Your task to perform on an android device: open a bookmark in the chrome app Image 0: 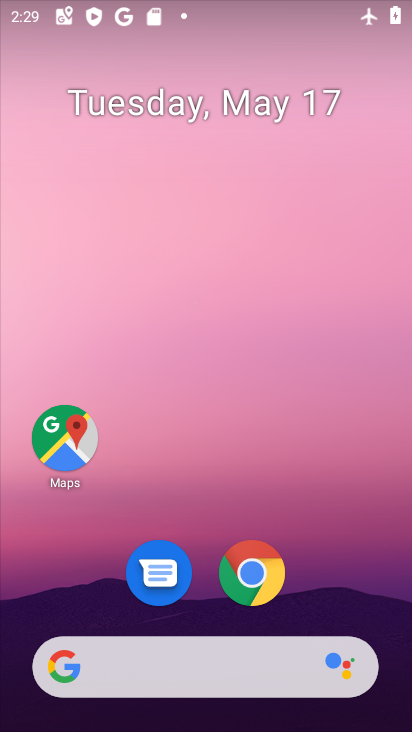
Step 0: drag from (343, 603) to (352, 153)
Your task to perform on an android device: open a bookmark in the chrome app Image 1: 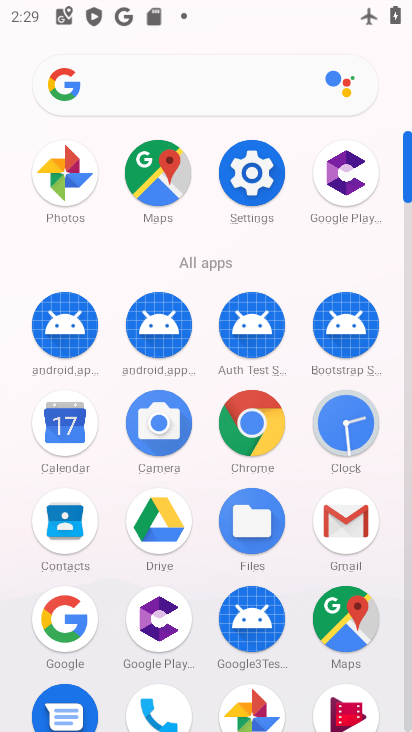
Step 1: click (253, 424)
Your task to perform on an android device: open a bookmark in the chrome app Image 2: 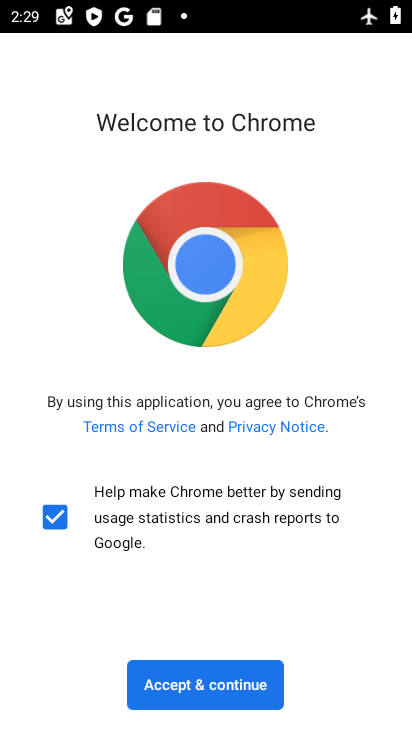
Step 2: click (221, 675)
Your task to perform on an android device: open a bookmark in the chrome app Image 3: 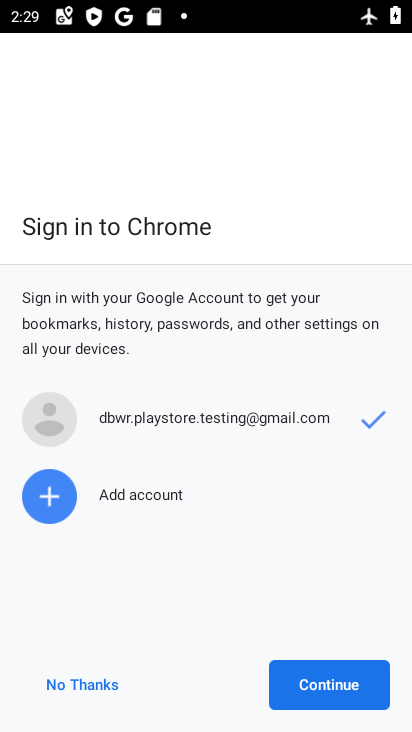
Step 3: click (310, 675)
Your task to perform on an android device: open a bookmark in the chrome app Image 4: 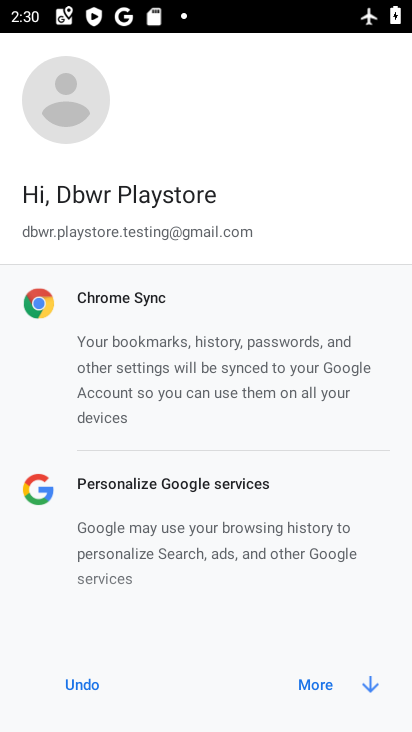
Step 4: click (306, 679)
Your task to perform on an android device: open a bookmark in the chrome app Image 5: 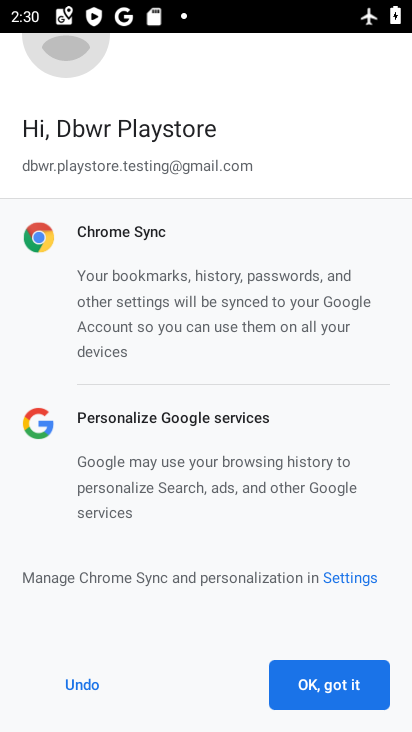
Step 5: click (304, 680)
Your task to perform on an android device: open a bookmark in the chrome app Image 6: 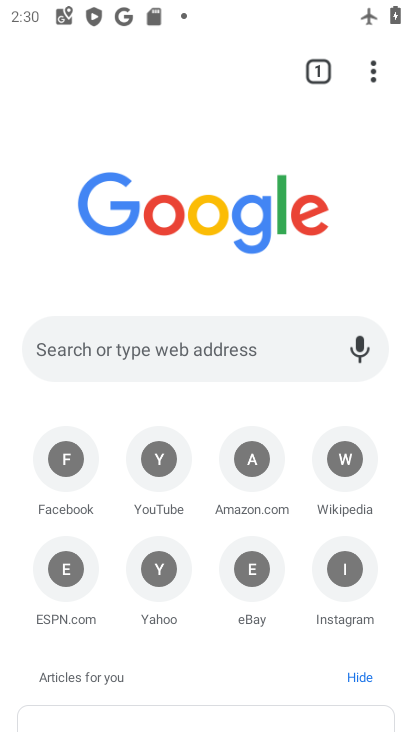
Step 6: task complete